Your task to perform on an android device: open app "Upside-Cash back on gas & food" (install if not already installed) and go to login screen Image 0: 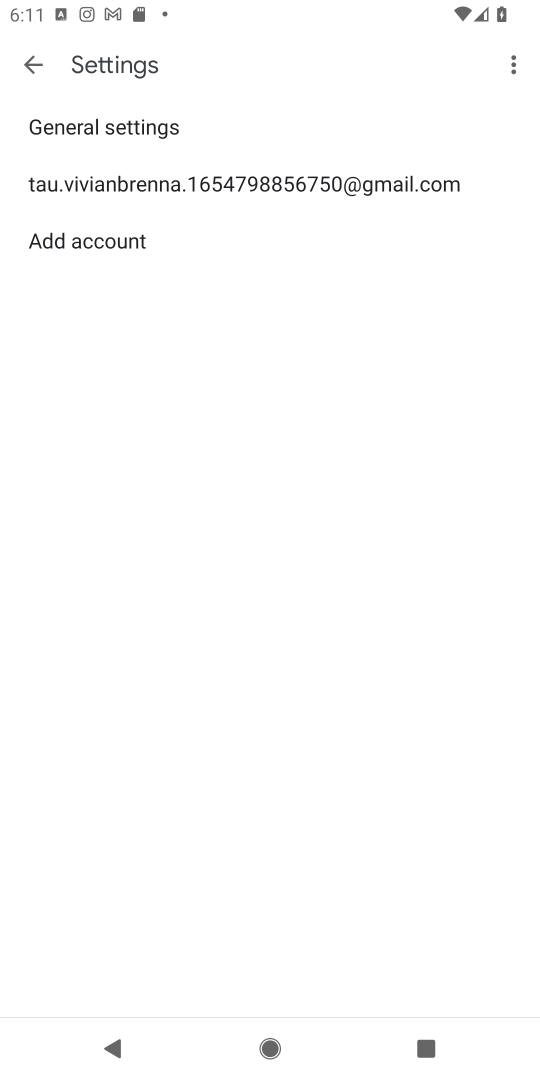
Step 0: press home button
Your task to perform on an android device: open app "Upside-Cash back on gas & food" (install if not already installed) and go to login screen Image 1: 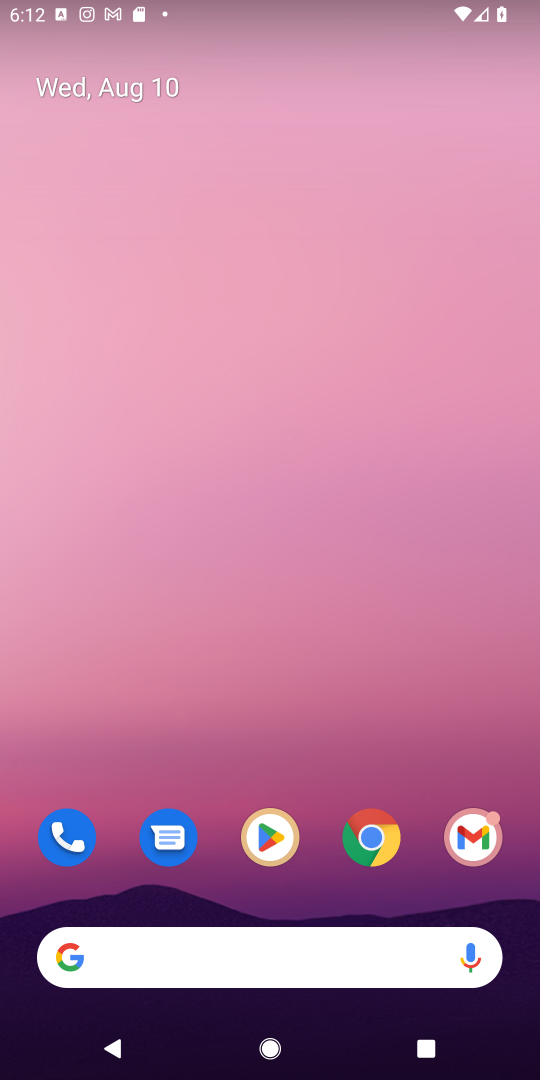
Step 1: click (274, 834)
Your task to perform on an android device: open app "Upside-Cash back on gas & food" (install if not already installed) and go to login screen Image 2: 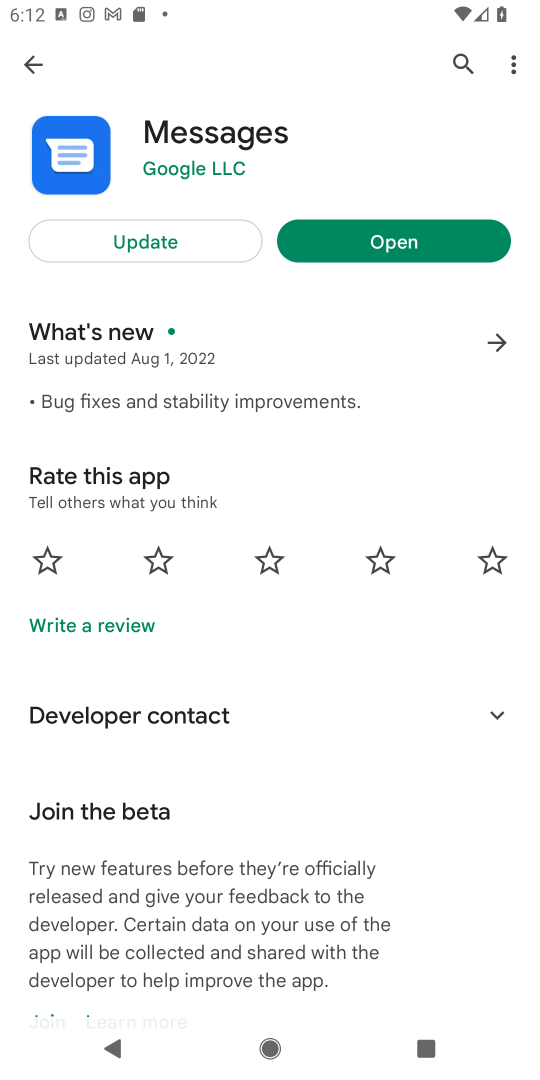
Step 2: click (461, 57)
Your task to perform on an android device: open app "Upside-Cash back on gas & food" (install if not already installed) and go to login screen Image 3: 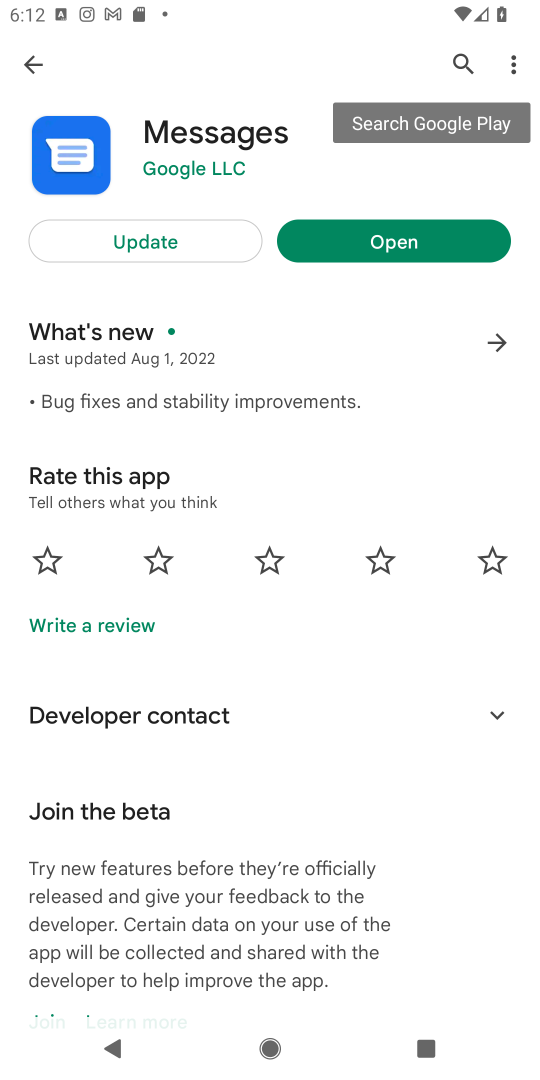
Step 3: click (461, 61)
Your task to perform on an android device: open app "Upside-Cash back on gas & food" (install if not already installed) and go to login screen Image 4: 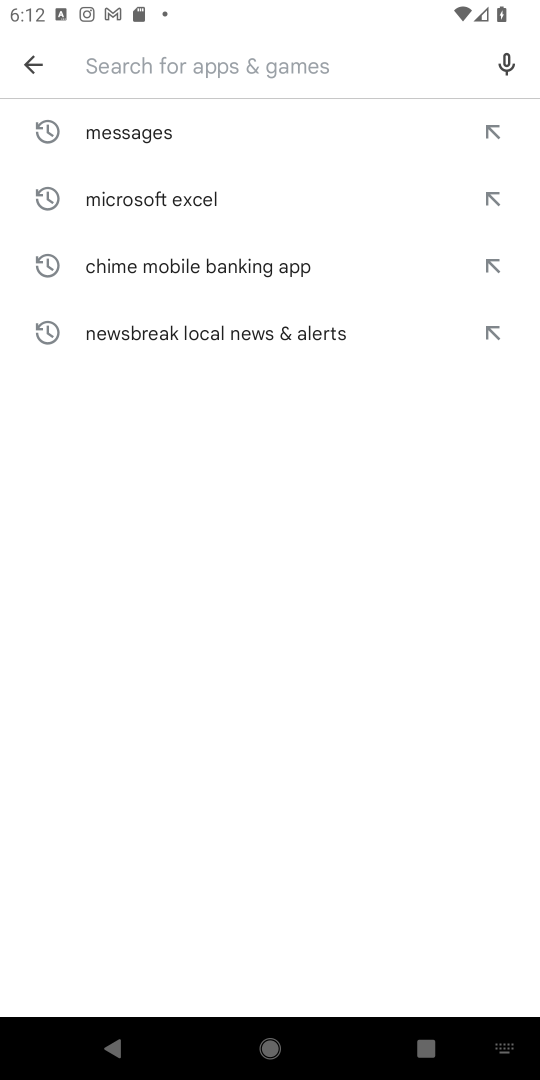
Step 4: type "Upside-Cash back on gas & food"
Your task to perform on an android device: open app "Upside-Cash back on gas & food" (install if not already installed) and go to login screen Image 5: 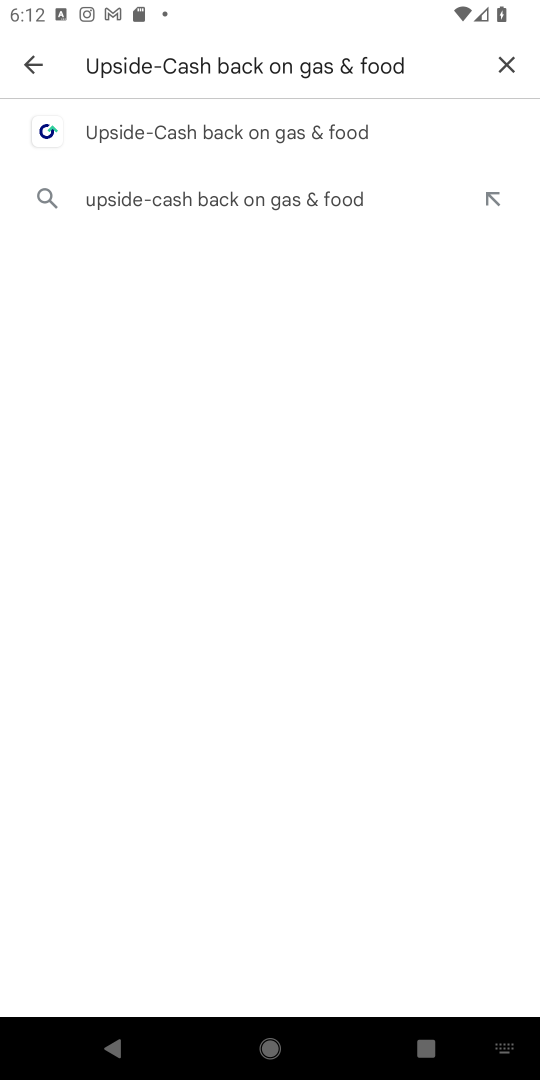
Step 5: click (250, 128)
Your task to perform on an android device: open app "Upside-Cash back on gas & food" (install if not already installed) and go to login screen Image 6: 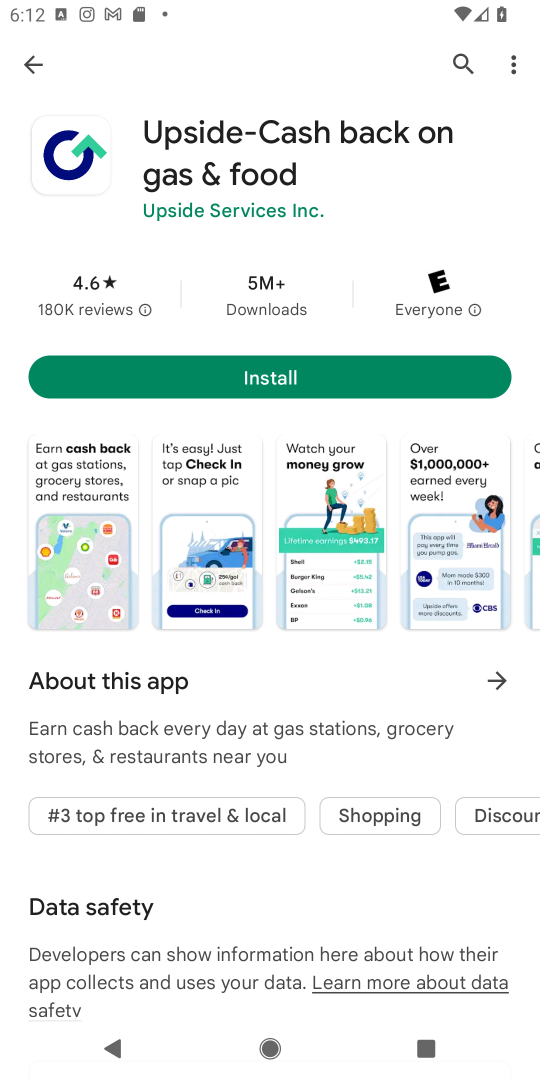
Step 6: click (250, 377)
Your task to perform on an android device: open app "Upside-Cash back on gas & food" (install if not already installed) and go to login screen Image 7: 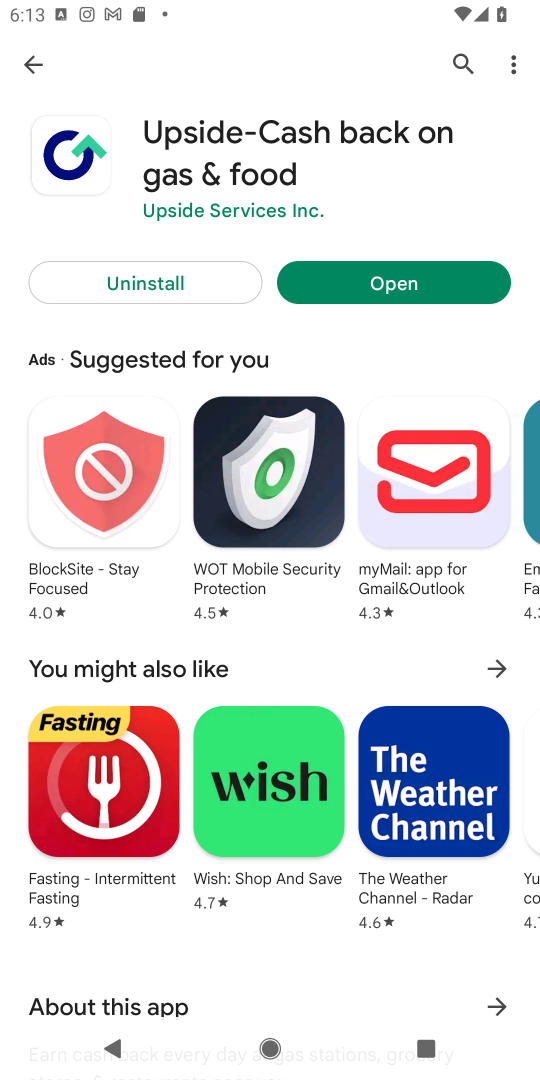
Step 7: click (394, 281)
Your task to perform on an android device: open app "Upside-Cash back on gas & food" (install if not already installed) and go to login screen Image 8: 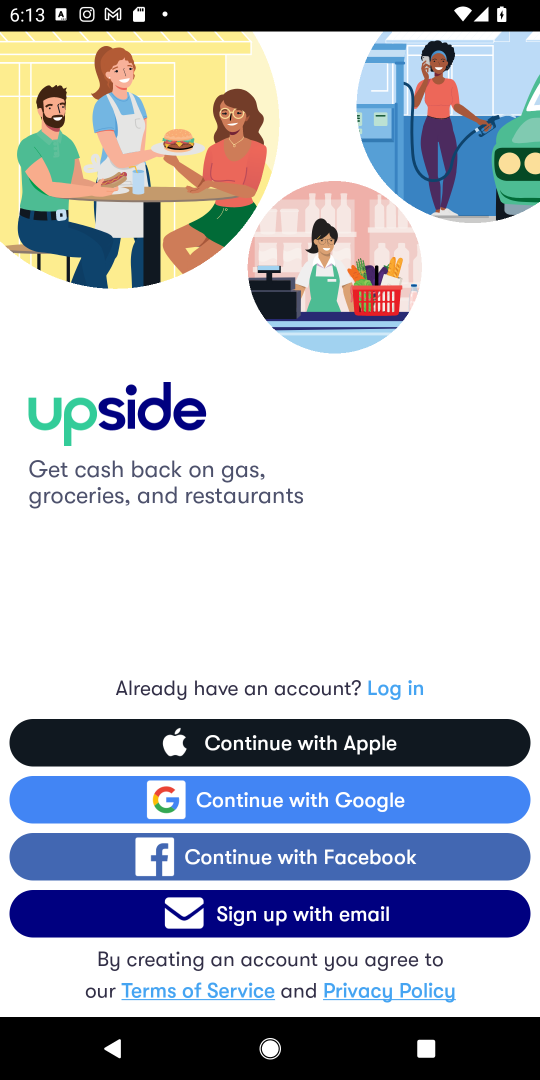
Step 8: task complete